Your task to perform on an android device: Show me recent news Image 0: 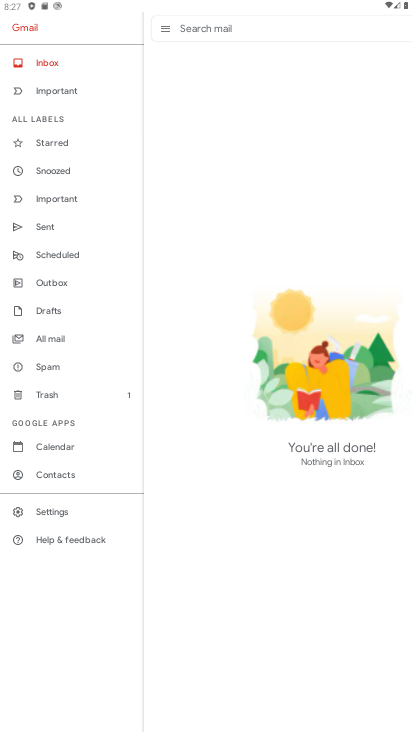
Step 0: press home button
Your task to perform on an android device: Show me recent news Image 1: 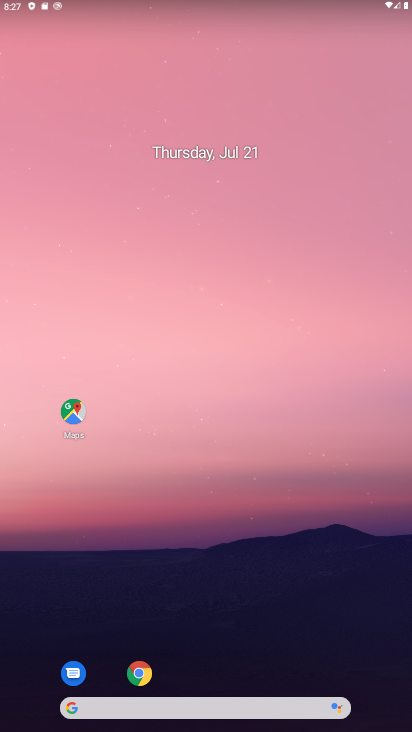
Step 1: task complete